Your task to perform on an android device: Open Android settings Image 0: 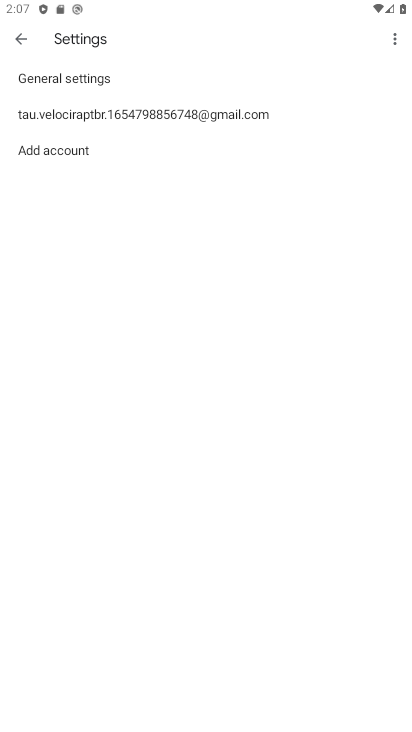
Step 0: press home button
Your task to perform on an android device: Open Android settings Image 1: 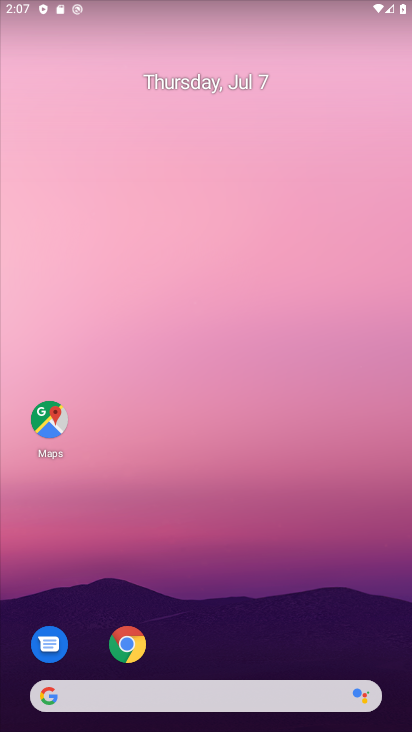
Step 1: drag from (252, 625) to (207, 214)
Your task to perform on an android device: Open Android settings Image 2: 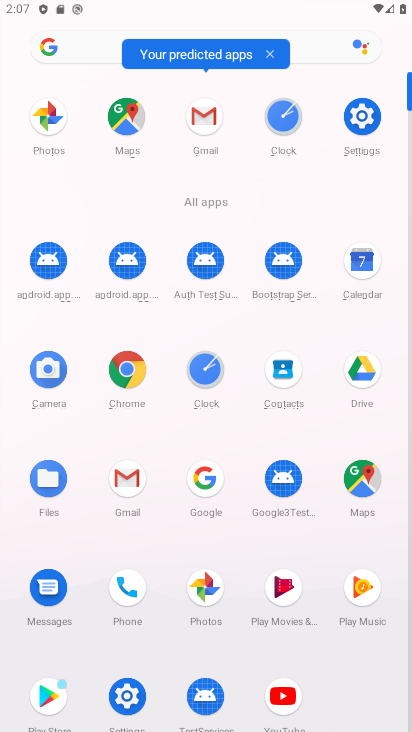
Step 2: click (360, 115)
Your task to perform on an android device: Open Android settings Image 3: 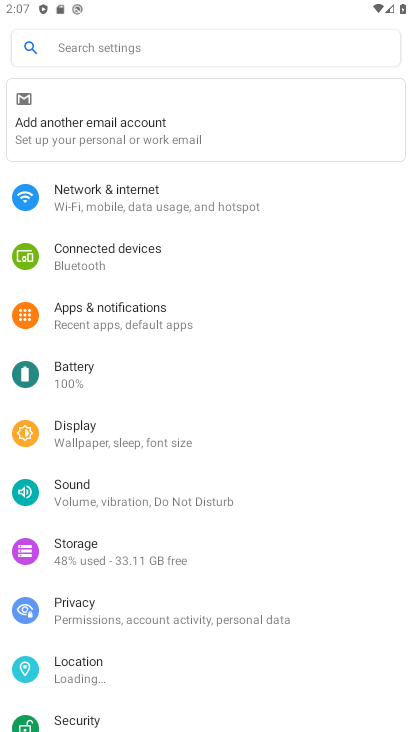
Step 3: task complete